Your task to perform on an android device: Go to Yahoo.com Image 0: 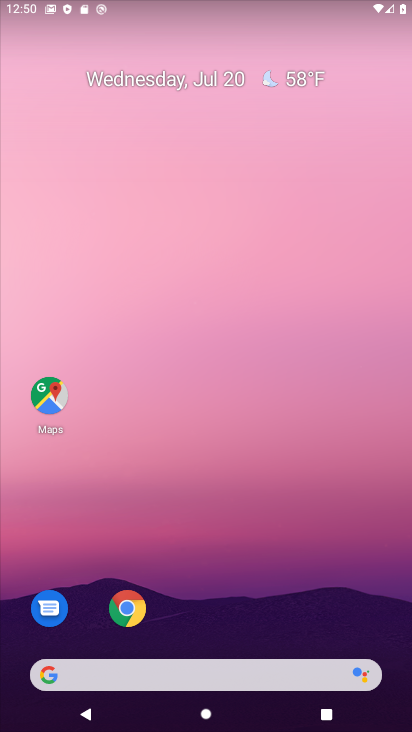
Step 0: drag from (246, 722) to (243, 263)
Your task to perform on an android device: Go to Yahoo.com Image 1: 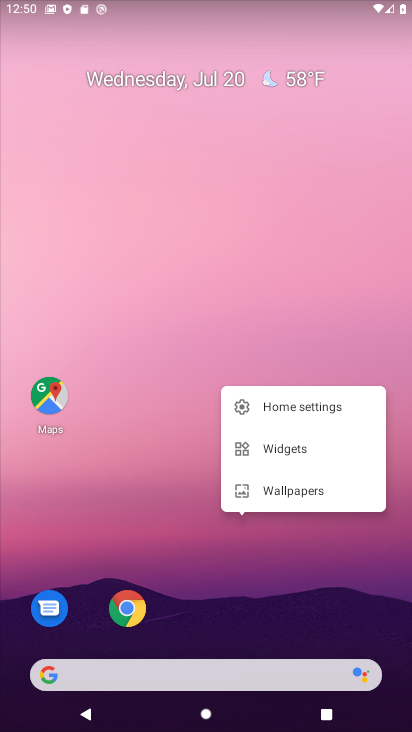
Step 1: click (264, 361)
Your task to perform on an android device: Go to Yahoo.com Image 2: 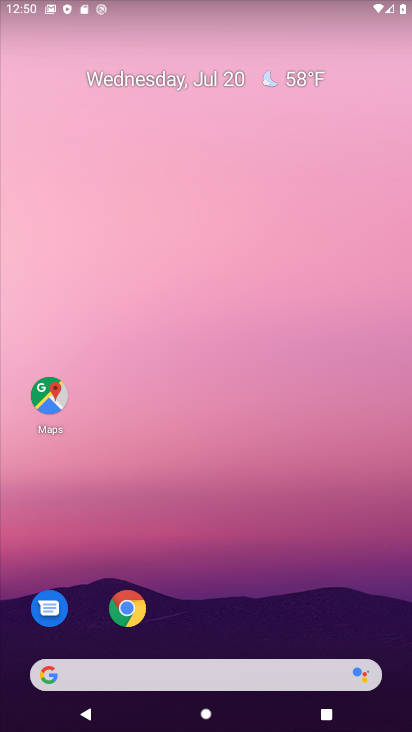
Step 2: drag from (256, 523) to (256, 103)
Your task to perform on an android device: Go to Yahoo.com Image 3: 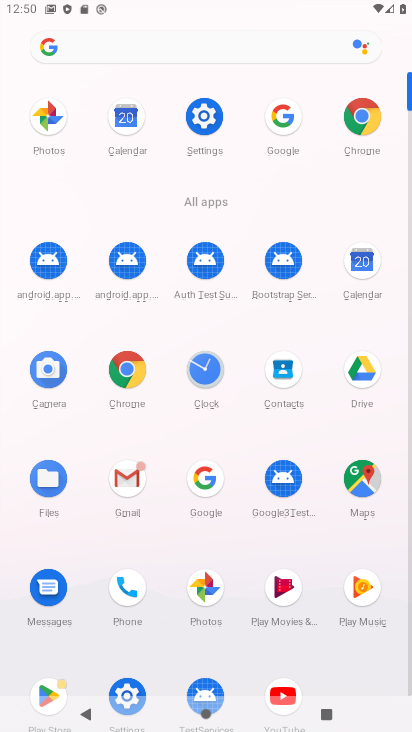
Step 3: click (361, 114)
Your task to perform on an android device: Go to Yahoo.com Image 4: 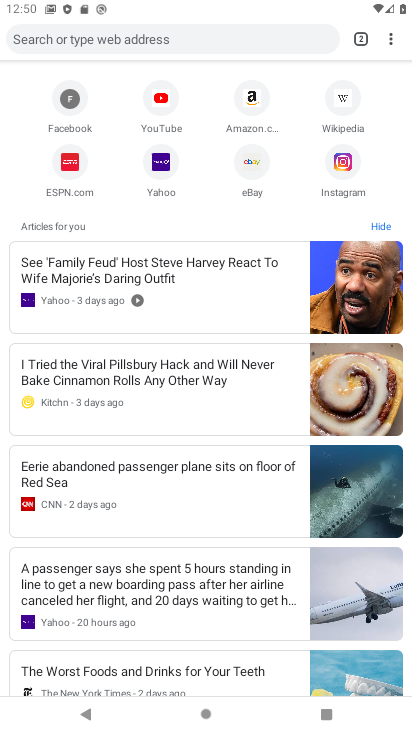
Step 4: click (154, 165)
Your task to perform on an android device: Go to Yahoo.com Image 5: 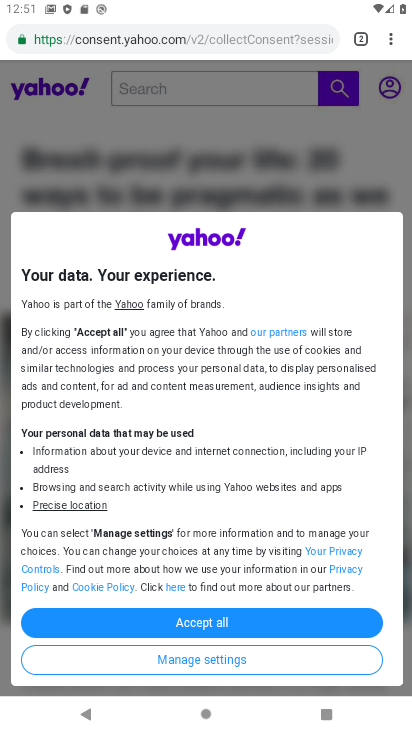
Step 5: task complete